Your task to perform on an android device: Open the web browser Image 0: 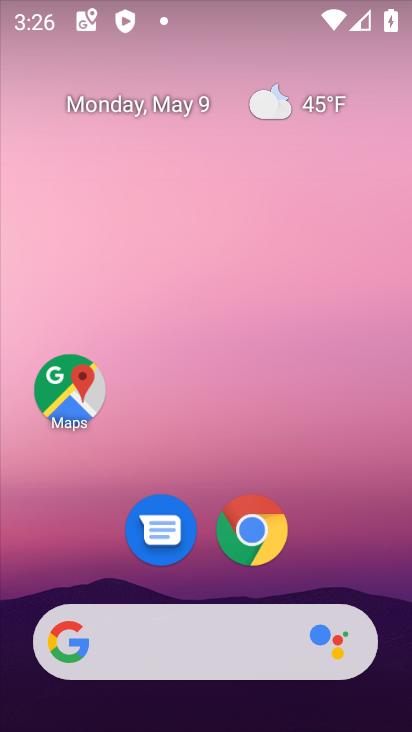
Step 0: click (222, 266)
Your task to perform on an android device: Open the web browser Image 1: 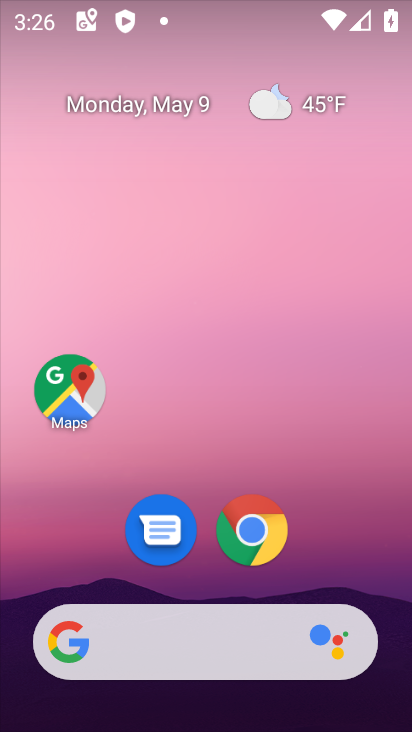
Step 1: click (257, 532)
Your task to perform on an android device: Open the web browser Image 2: 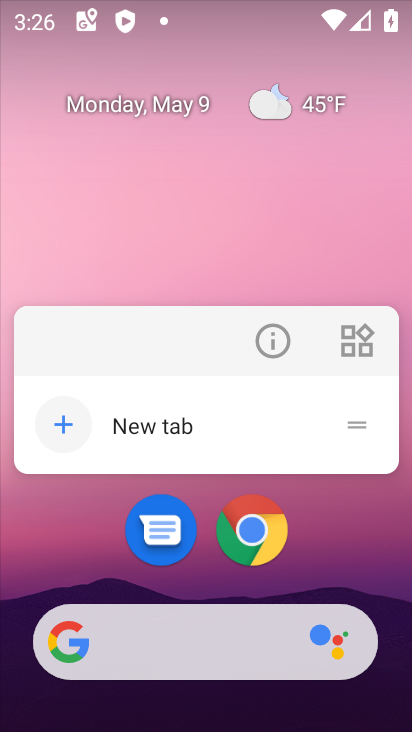
Step 2: click (259, 522)
Your task to perform on an android device: Open the web browser Image 3: 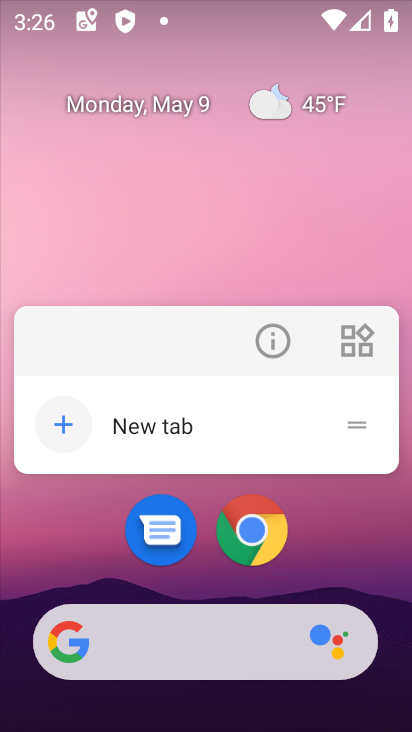
Step 3: click (134, 433)
Your task to perform on an android device: Open the web browser Image 4: 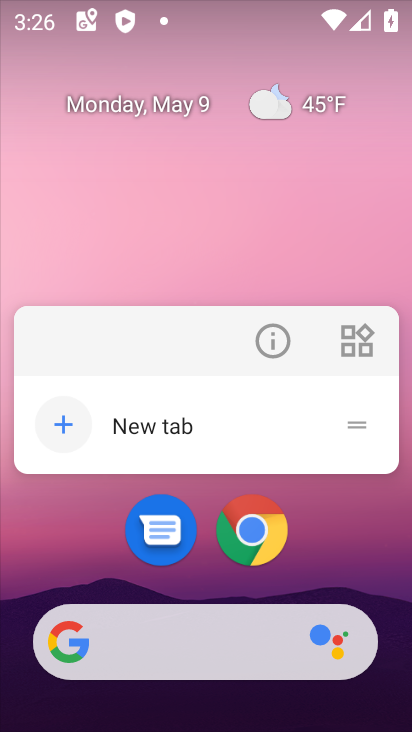
Step 4: click (140, 429)
Your task to perform on an android device: Open the web browser Image 5: 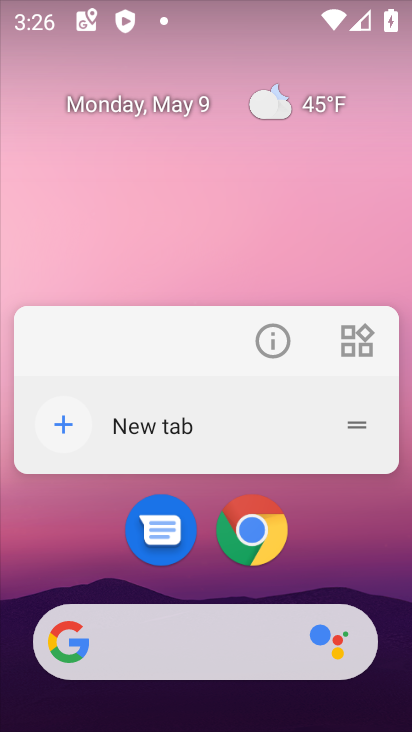
Step 5: click (142, 428)
Your task to perform on an android device: Open the web browser Image 6: 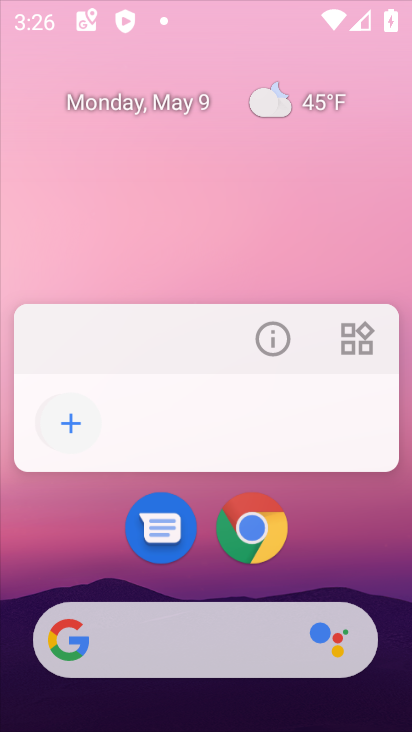
Step 6: click (144, 428)
Your task to perform on an android device: Open the web browser Image 7: 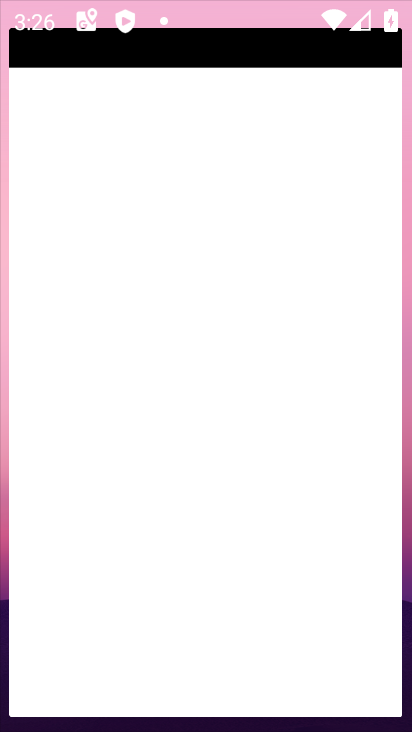
Step 7: click (145, 428)
Your task to perform on an android device: Open the web browser Image 8: 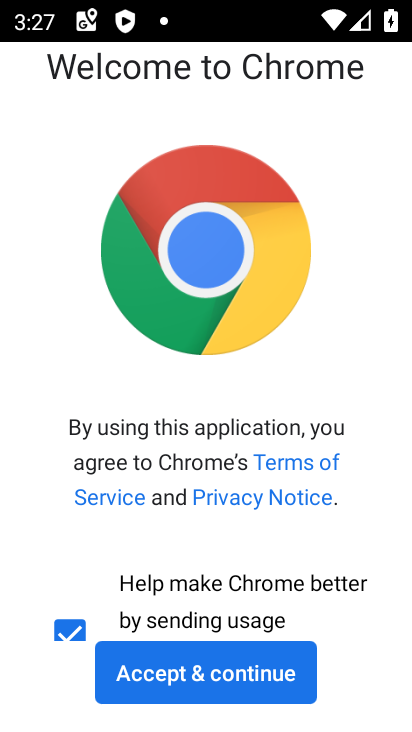
Step 8: click (213, 672)
Your task to perform on an android device: Open the web browser Image 9: 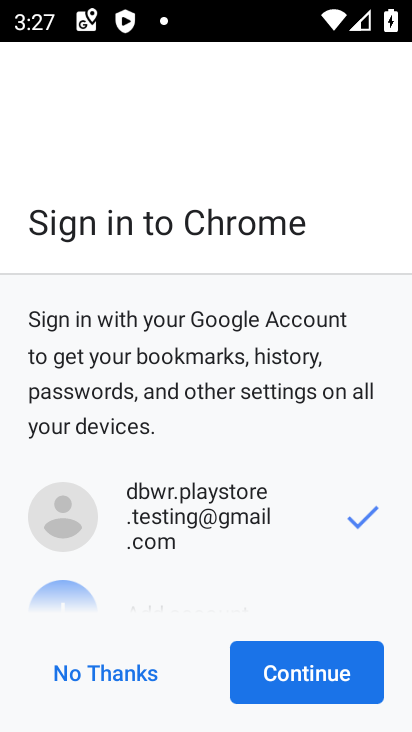
Step 9: click (302, 676)
Your task to perform on an android device: Open the web browser Image 10: 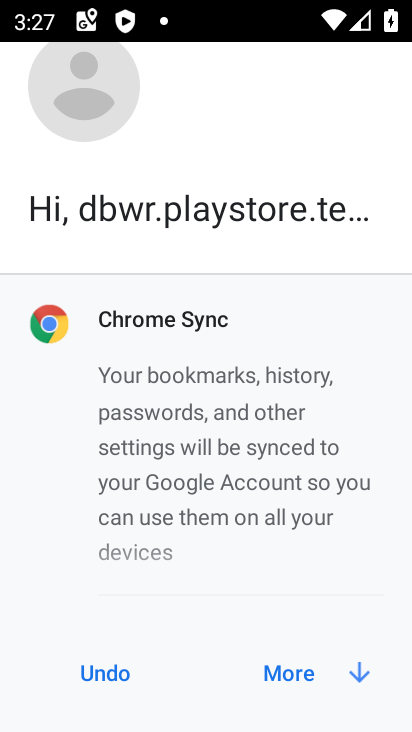
Step 10: click (300, 673)
Your task to perform on an android device: Open the web browser Image 11: 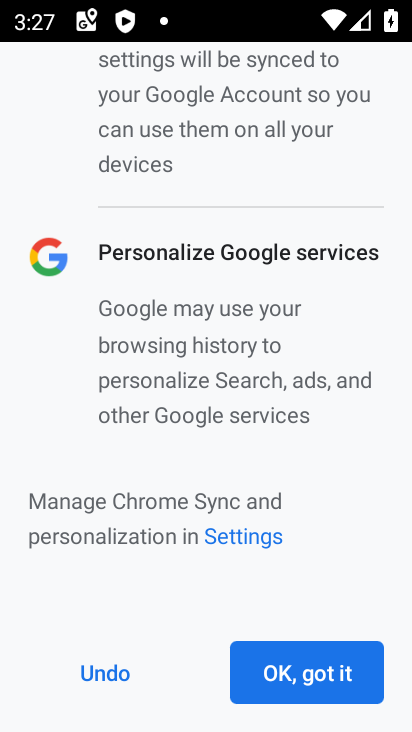
Step 11: click (301, 658)
Your task to perform on an android device: Open the web browser Image 12: 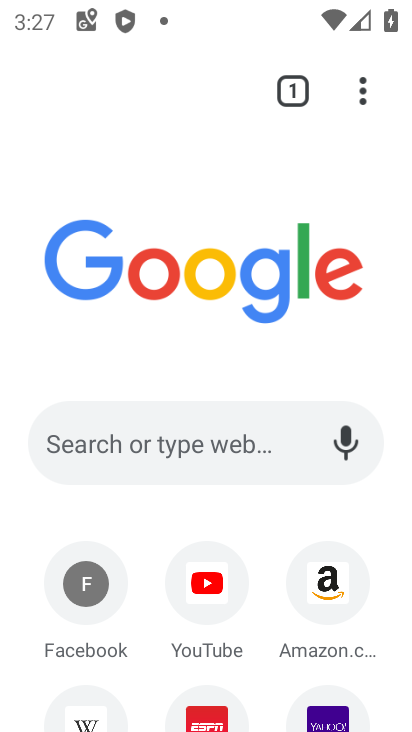
Step 12: click (178, 444)
Your task to perform on an android device: Open the web browser Image 13: 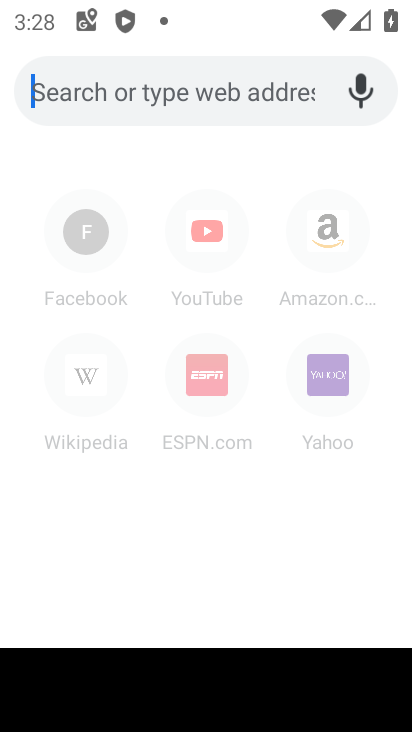
Step 13: click (80, 92)
Your task to perform on an android device: Open the web browser Image 14: 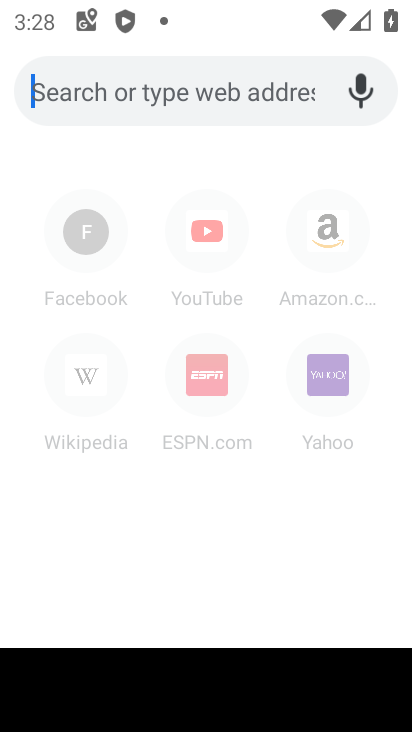
Step 14: click (95, 94)
Your task to perform on an android device: Open the web browser Image 15: 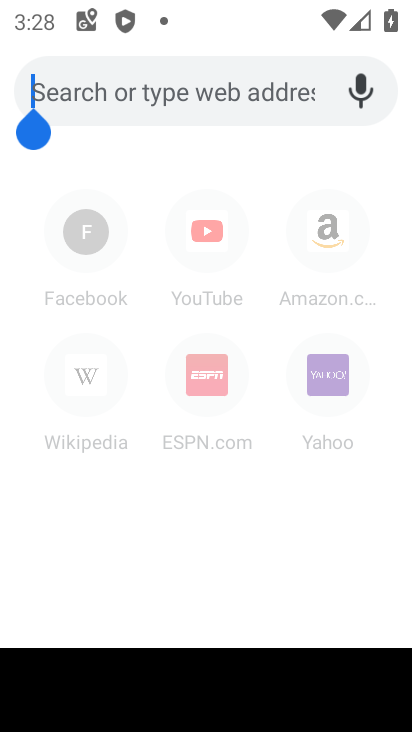
Step 15: click (96, 96)
Your task to perform on an android device: Open the web browser Image 16: 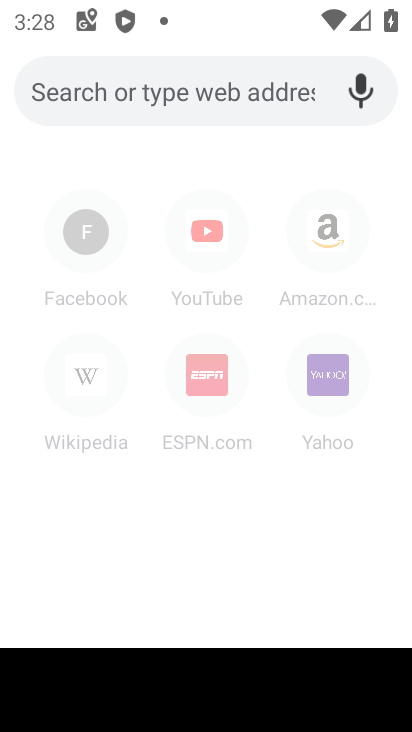
Step 16: task complete